Your task to perform on an android device: Search for sushi restaurants on Maps Image 0: 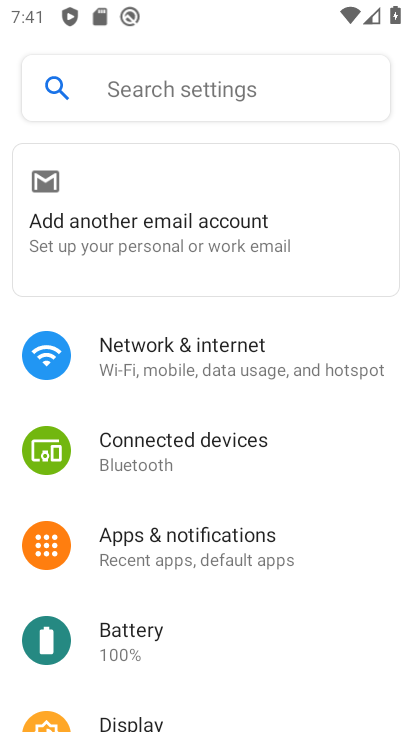
Step 0: press home button
Your task to perform on an android device: Search for sushi restaurants on Maps Image 1: 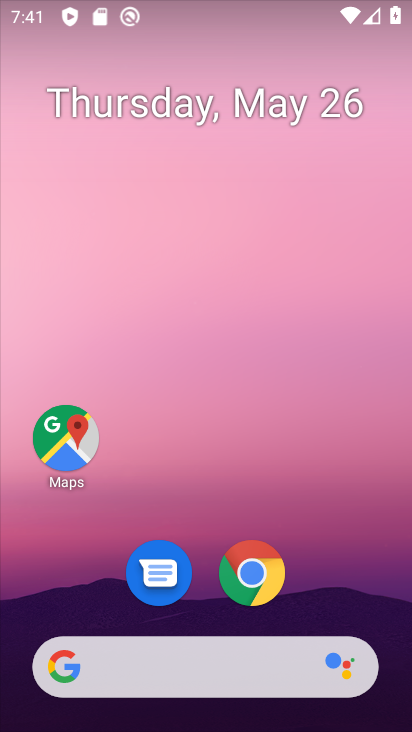
Step 1: click (84, 409)
Your task to perform on an android device: Search for sushi restaurants on Maps Image 2: 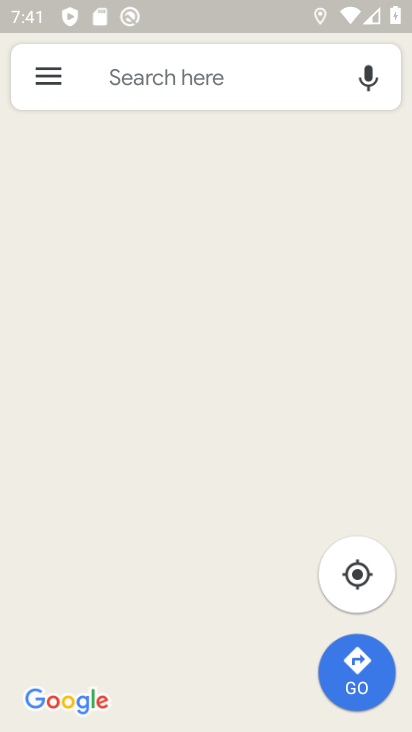
Step 2: click (195, 85)
Your task to perform on an android device: Search for sushi restaurants on Maps Image 3: 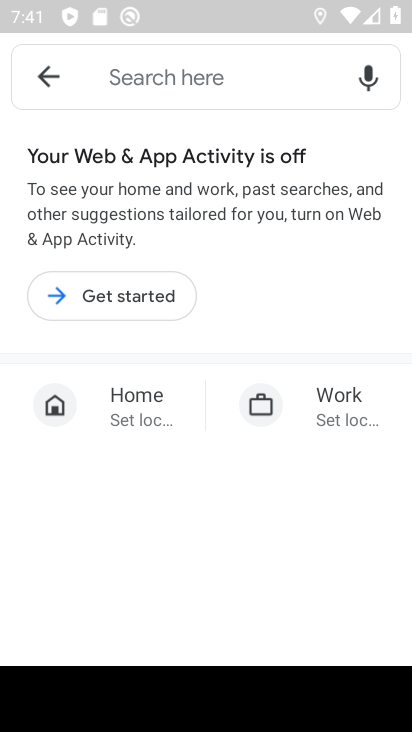
Step 3: click (108, 282)
Your task to perform on an android device: Search for sushi restaurants on Maps Image 4: 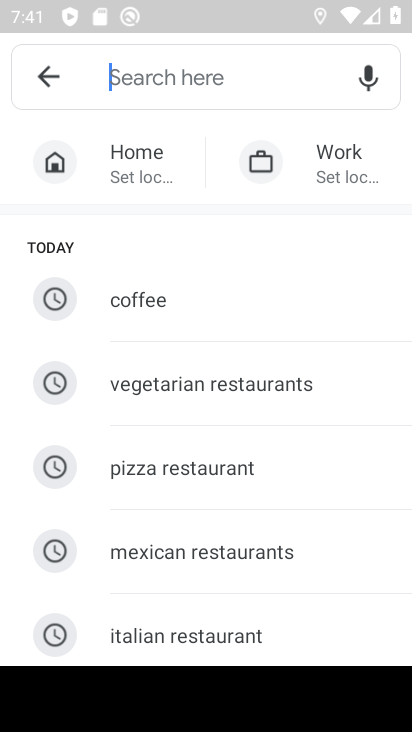
Step 4: drag from (224, 599) to (187, 191)
Your task to perform on an android device: Search for sushi restaurants on Maps Image 5: 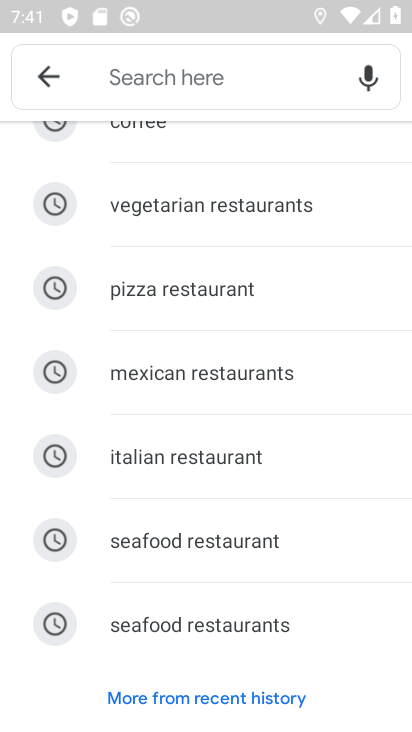
Step 5: drag from (102, 283) to (102, 551)
Your task to perform on an android device: Search for sushi restaurants on Maps Image 6: 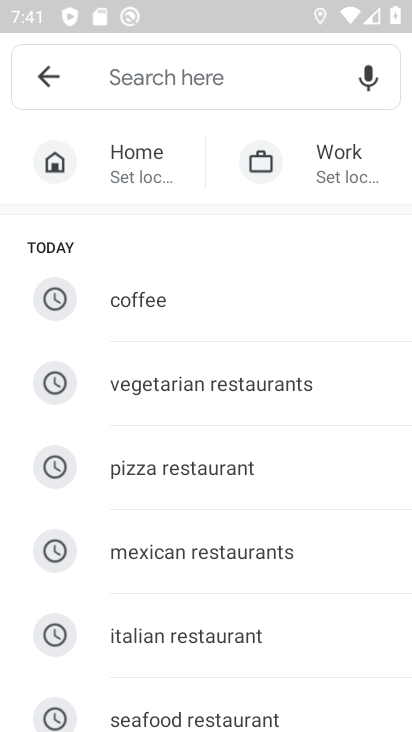
Step 6: click (181, 87)
Your task to perform on an android device: Search for sushi restaurants on Maps Image 7: 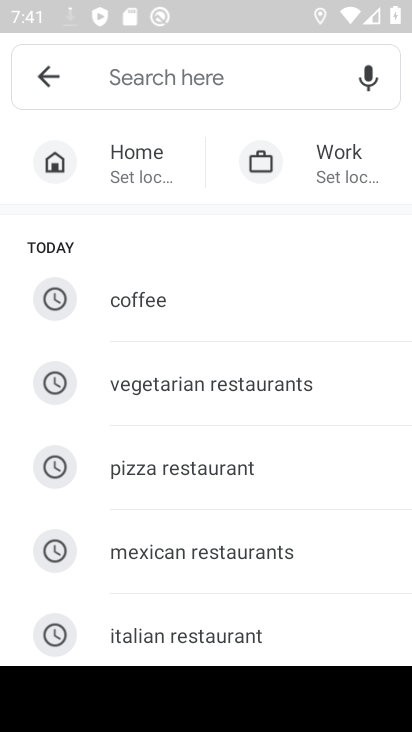
Step 7: type "sushi"
Your task to perform on an android device: Search for sushi restaurants on Maps Image 8: 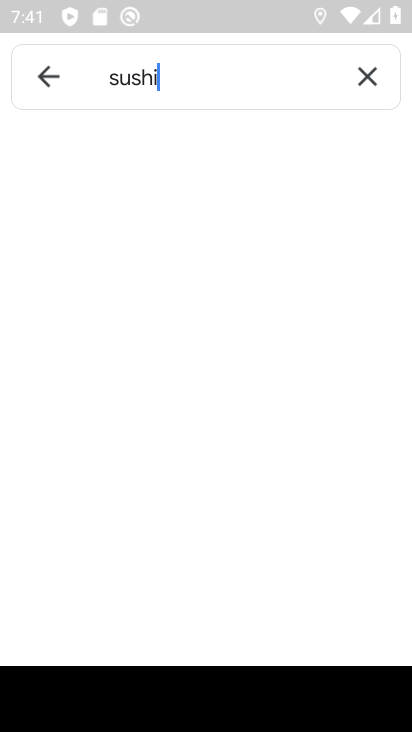
Step 8: type ""
Your task to perform on an android device: Search for sushi restaurants on Maps Image 9: 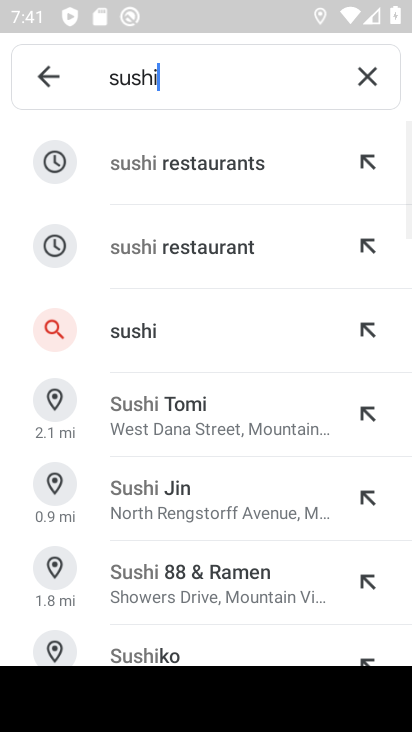
Step 9: click (189, 155)
Your task to perform on an android device: Search for sushi restaurants on Maps Image 10: 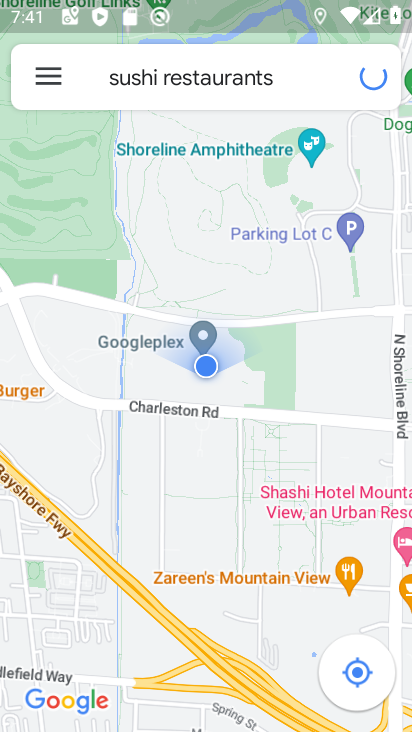
Step 10: task complete